Your task to perform on an android device: When is my next meeting? Image 0: 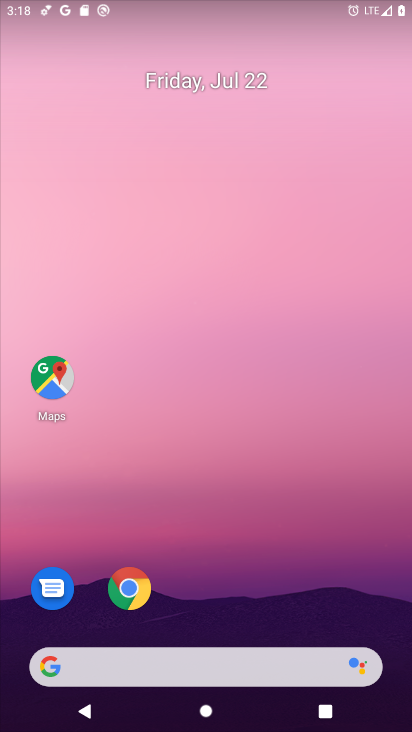
Step 0: drag from (277, 563) to (286, 15)
Your task to perform on an android device: When is my next meeting? Image 1: 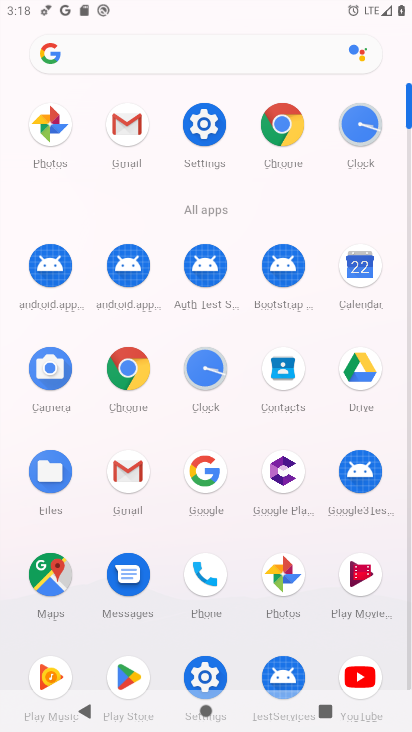
Step 1: click (359, 258)
Your task to perform on an android device: When is my next meeting? Image 2: 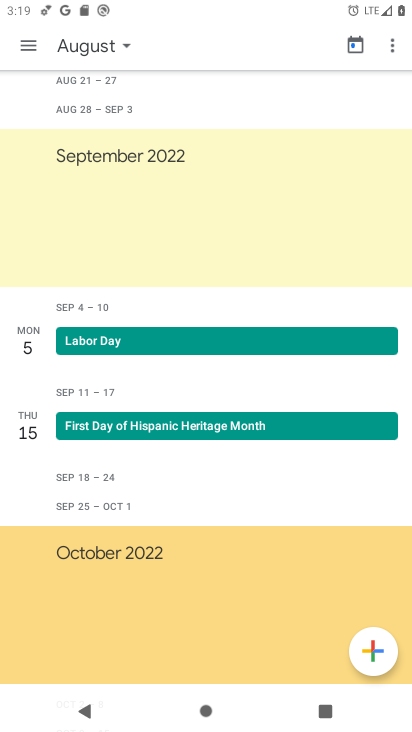
Step 2: click (88, 48)
Your task to perform on an android device: When is my next meeting? Image 3: 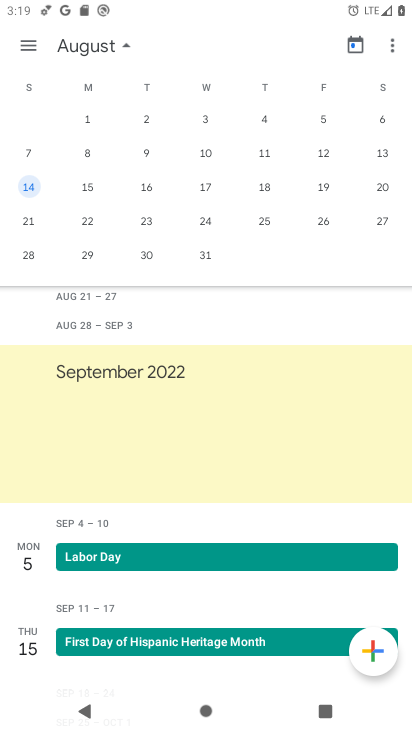
Step 3: drag from (64, 204) to (407, 320)
Your task to perform on an android device: When is my next meeting? Image 4: 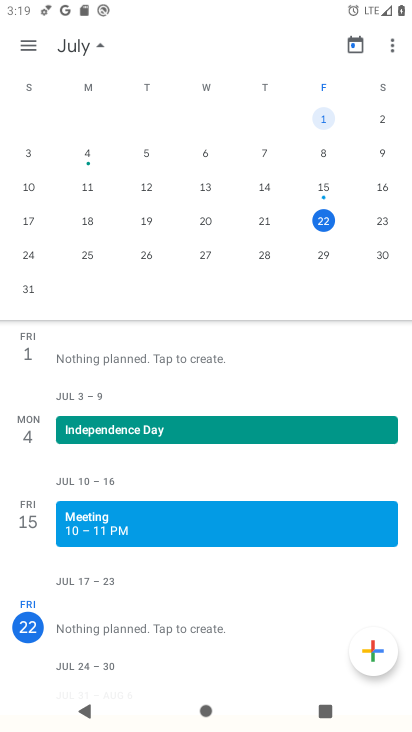
Step 4: drag from (49, 177) to (123, 175)
Your task to perform on an android device: When is my next meeting? Image 5: 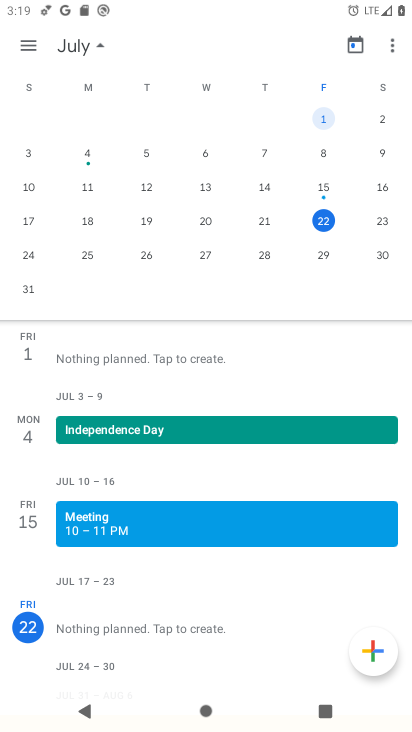
Step 5: click (329, 220)
Your task to perform on an android device: When is my next meeting? Image 6: 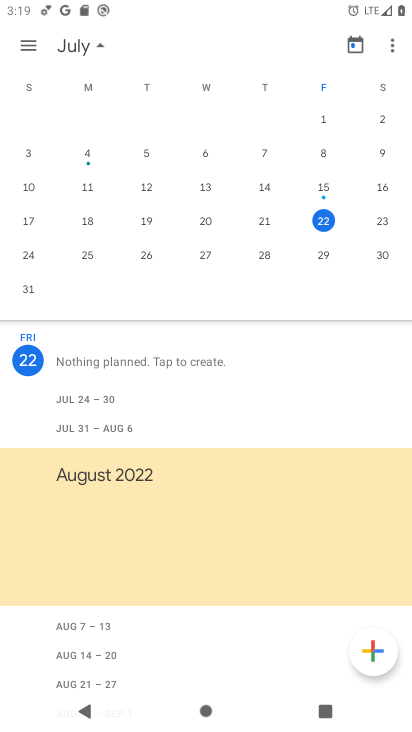
Step 6: task complete